Your task to perform on an android device: What's on my calendar tomorrow? Image 0: 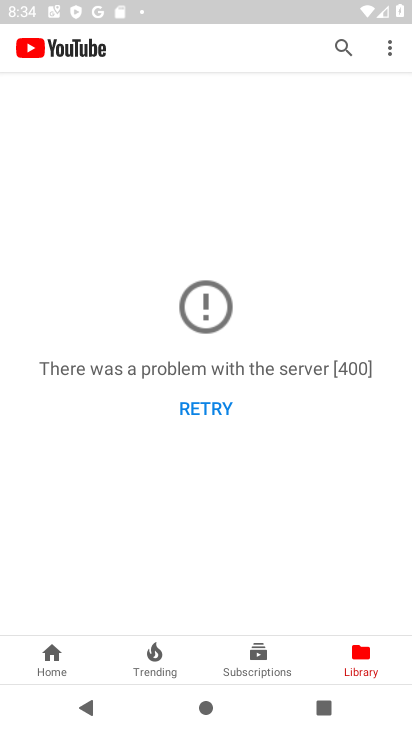
Step 0: press back button
Your task to perform on an android device: What's on my calendar tomorrow? Image 1: 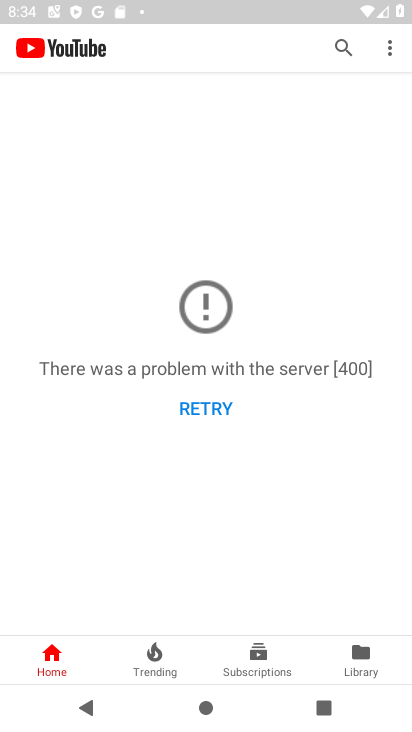
Step 1: press back button
Your task to perform on an android device: What's on my calendar tomorrow? Image 2: 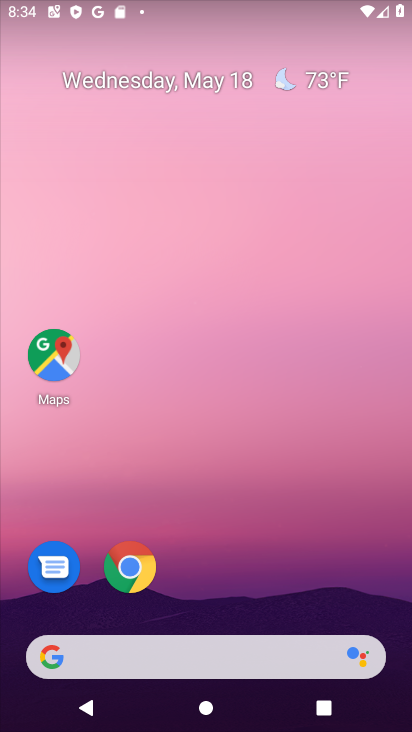
Step 2: drag from (246, 534) to (189, 13)
Your task to perform on an android device: What's on my calendar tomorrow? Image 3: 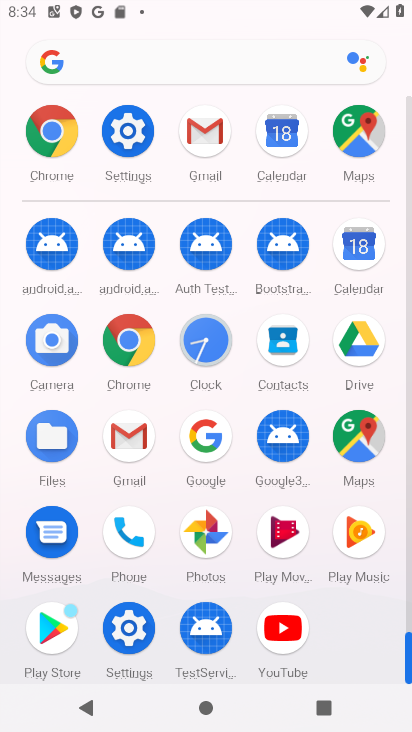
Step 3: click (357, 234)
Your task to perform on an android device: What's on my calendar tomorrow? Image 4: 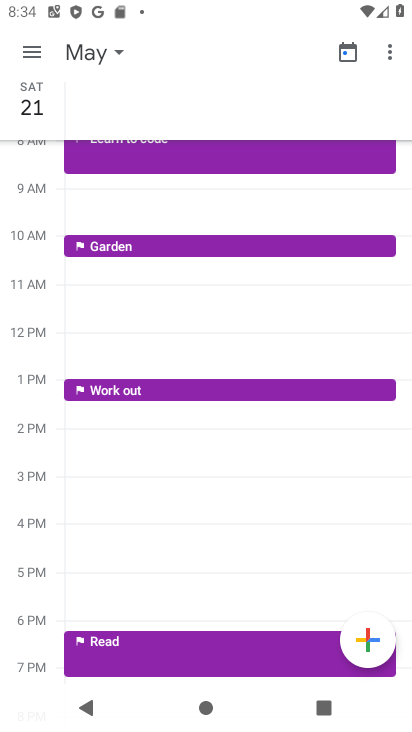
Step 4: click (342, 55)
Your task to perform on an android device: What's on my calendar tomorrow? Image 5: 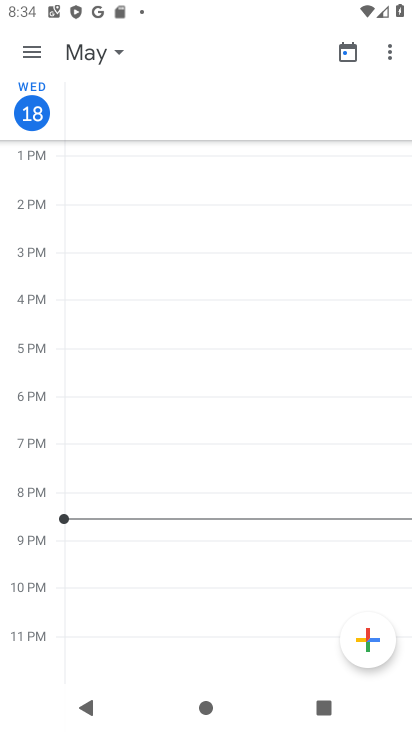
Step 5: task complete